Your task to perform on an android device: Open settings Image 0: 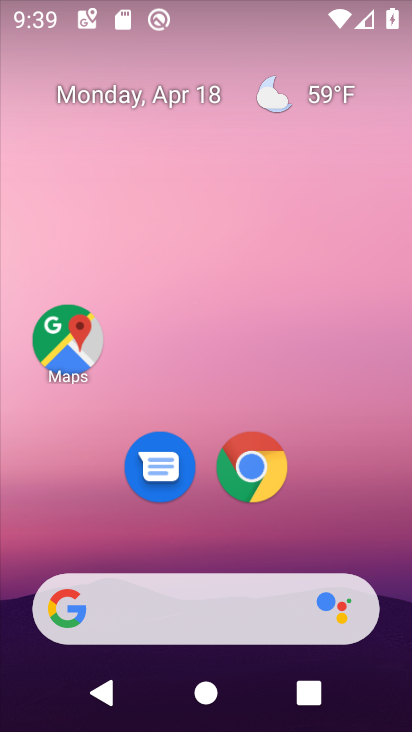
Step 0: drag from (174, 558) to (309, 45)
Your task to perform on an android device: Open settings Image 1: 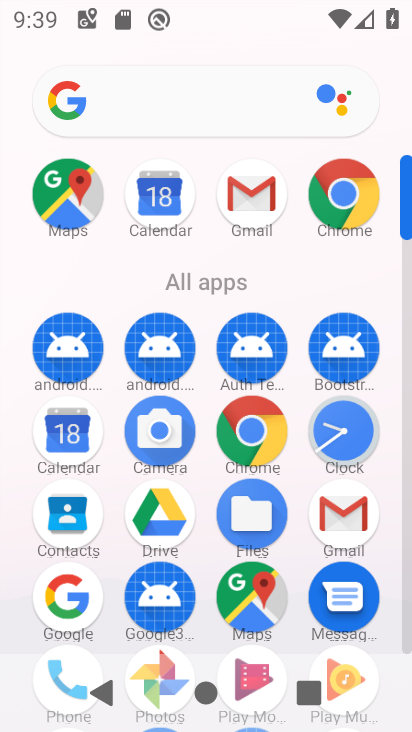
Step 1: drag from (167, 588) to (298, 167)
Your task to perform on an android device: Open settings Image 2: 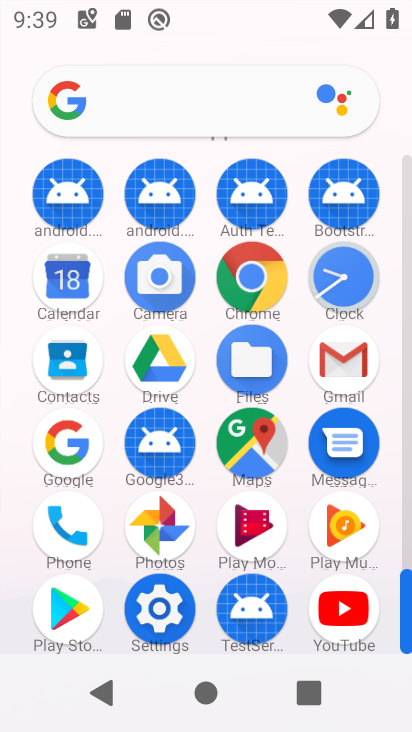
Step 2: click (160, 600)
Your task to perform on an android device: Open settings Image 3: 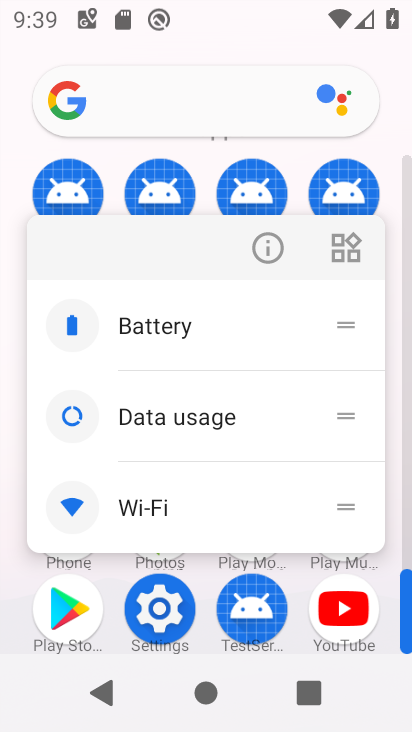
Step 3: click (154, 610)
Your task to perform on an android device: Open settings Image 4: 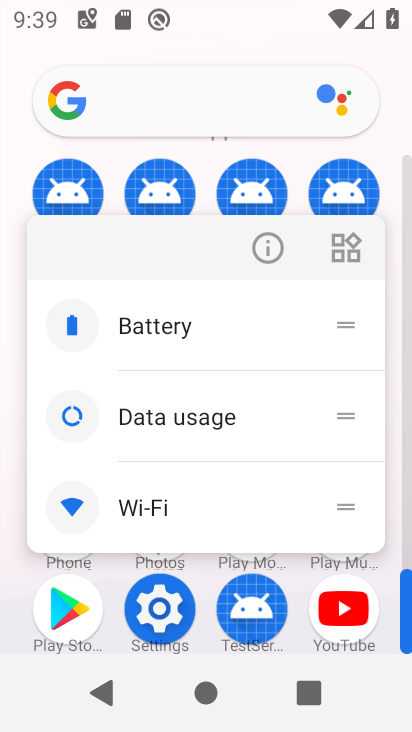
Step 4: click (155, 610)
Your task to perform on an android device: Open settings Image 5: 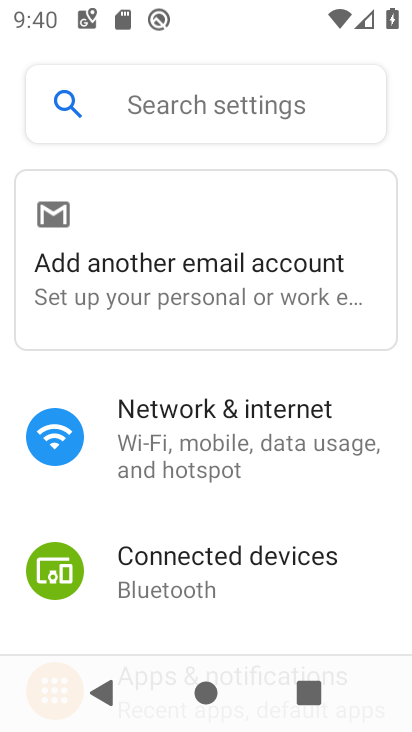
Step 5: task complete